Your task to perform on an android device: Open maps Image 0: 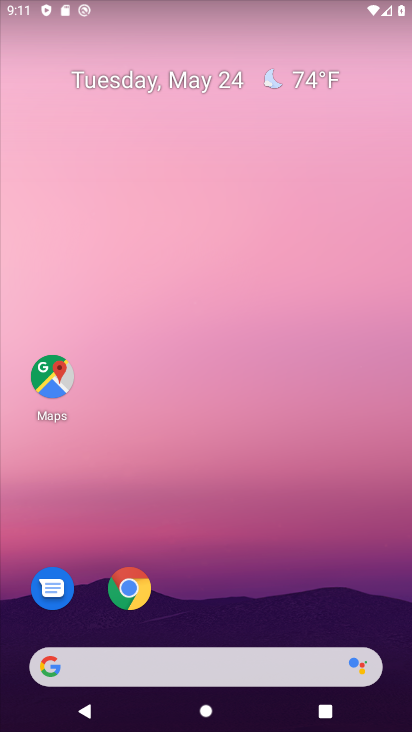
Step 0: click (64, 382)
Your task to perform on an android device: Open maps Image 1: 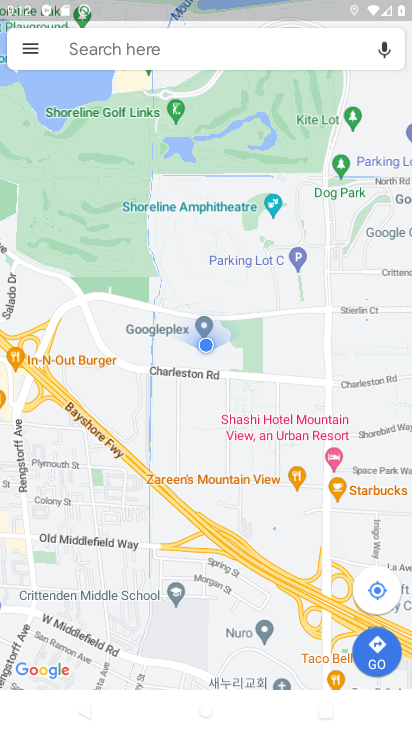
Step 1: task complete